Your task to perform on an android device: Open Chrome and go to settings Image 0: 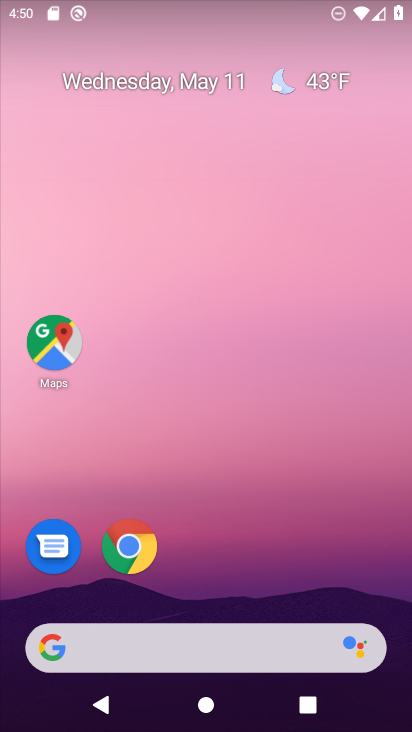
Step 0: click (134, 549)
Your task to perform on an android device: Open Chrome and go to settings Image 1: 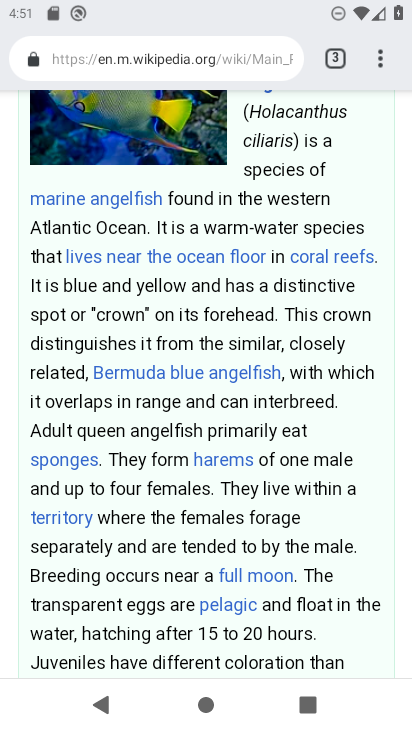
Step 1: click (381, 51)
Your task to perform on an android device: Open Chrome and go to settings Image 2: 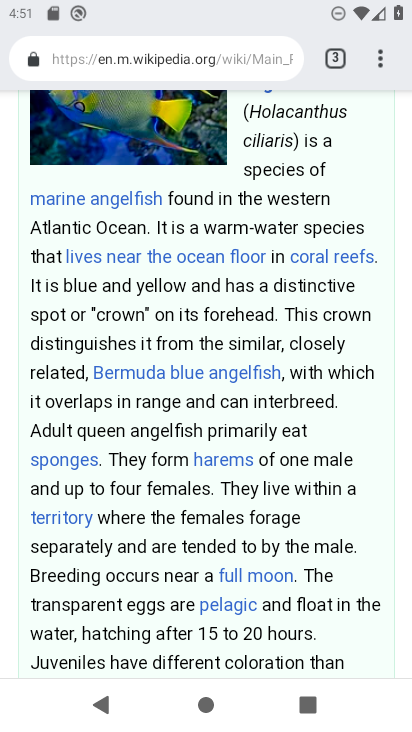
Step 2: click (380, 59)
Your task to perform on an android device: Open Chrome and go to settings Image 3: 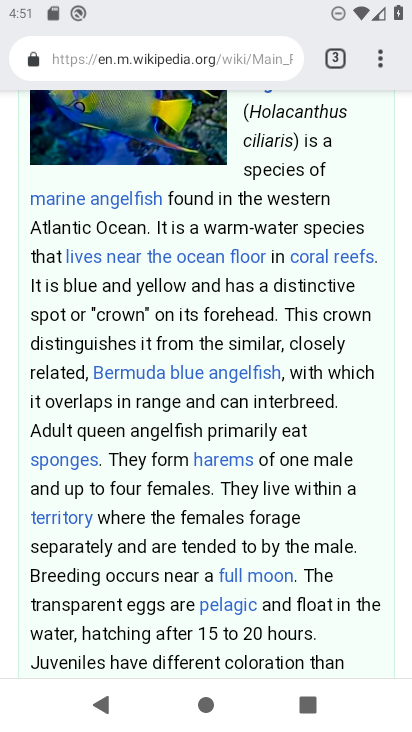
Step 3: click (380, 59)
Your task to perform on an android device: Open Chrome and go to settings Image 4: 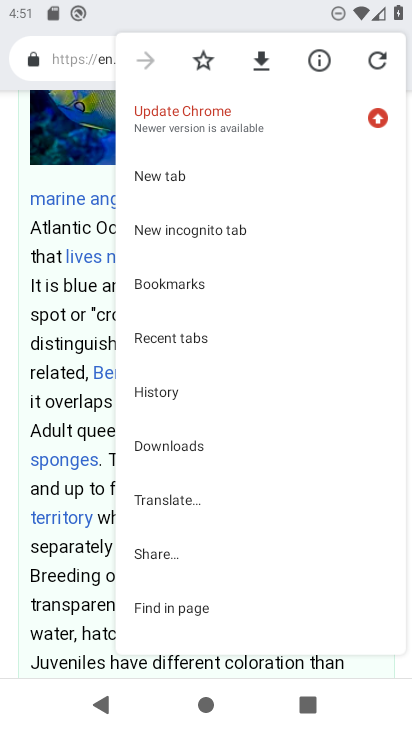
Step 4: drag from (224, 616) to (220, 304)
Your task to perform on an android device: Open Chrome and go to settings Image 5: 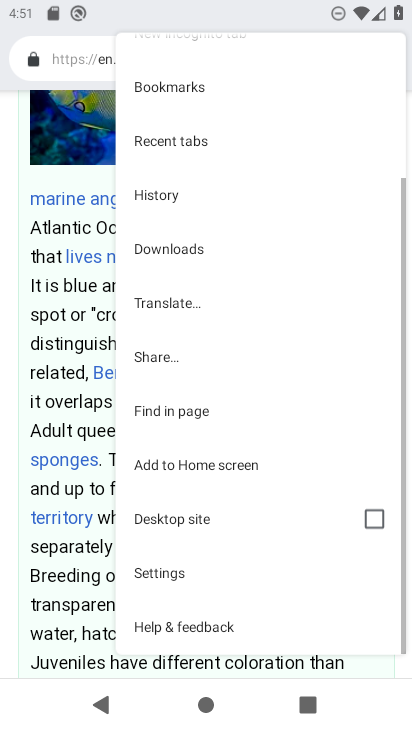
Step 5: click (166, 573)
Your task to perform on an android device: Open Chrome and go to settings Image 6: 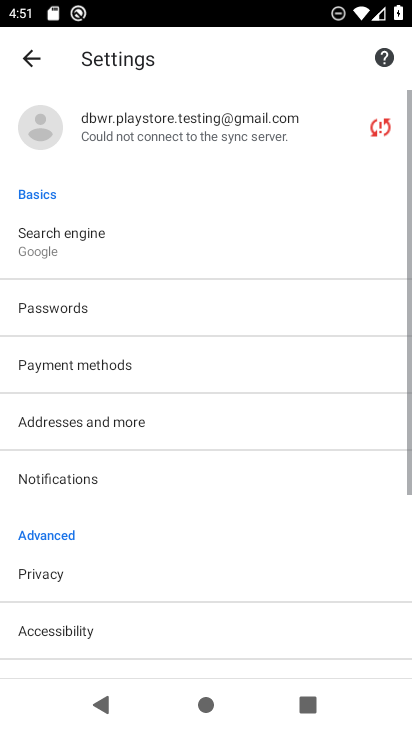
Step 6: task complete